Your task to perform on an android device: all mails in gmail Image 0: 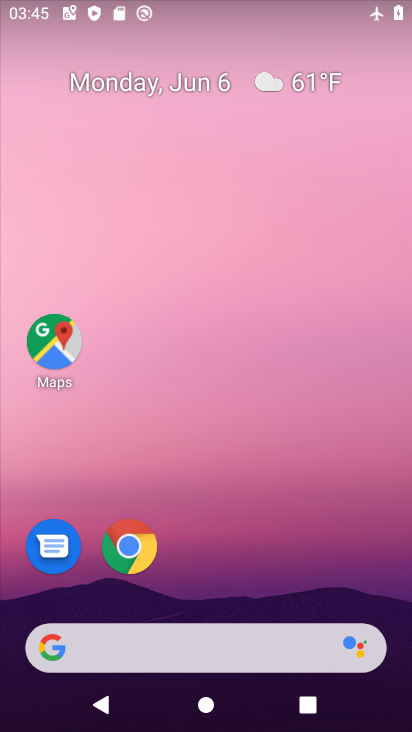
Step 0: drag from (191, 574) to (203, 84)
Your task to perform on an android device: all mails in gmail Image 1: 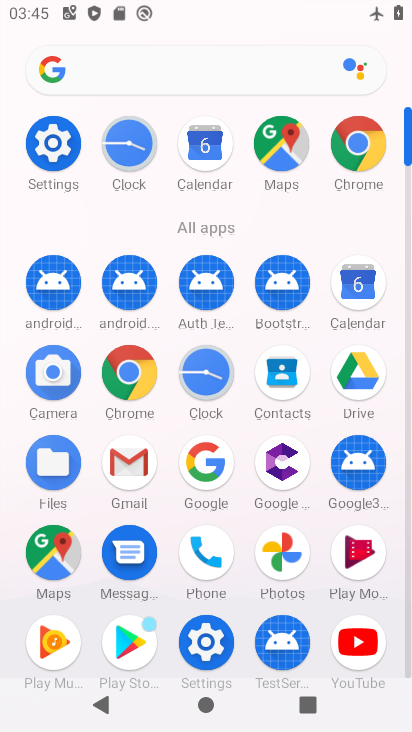
Step 1: click (130, 474)
Your task to perform on an android device: all mails in gmail Image 2: 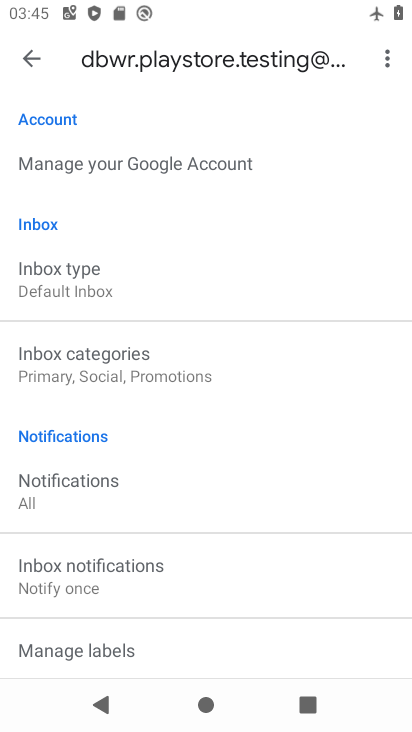
Step 2: click (25, 55)
Your task to perform on an android device: all mails in gmail Image 3: 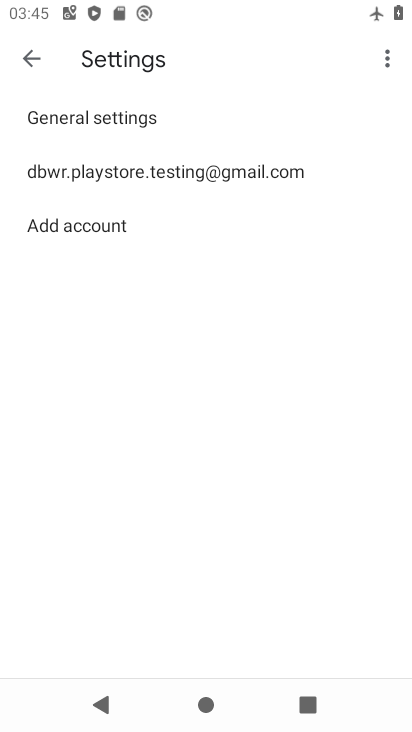
Step 3: click (35, 52)
Your task to perform on an android device: all mails in gmail Image 4: 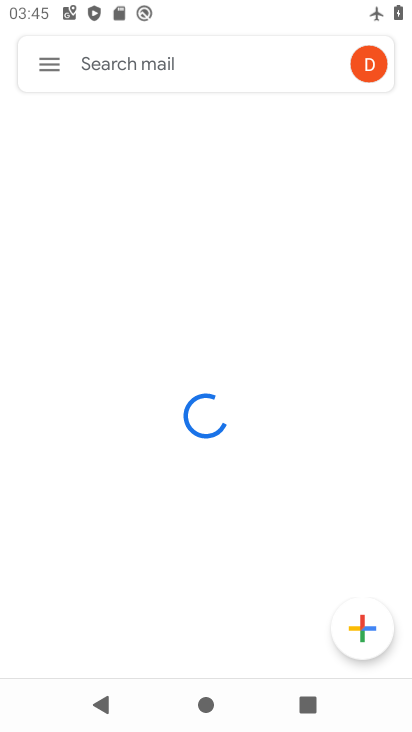
Step 4: click (50, 66)
Your task to perform on an android device: all mails in gmail Image 5: 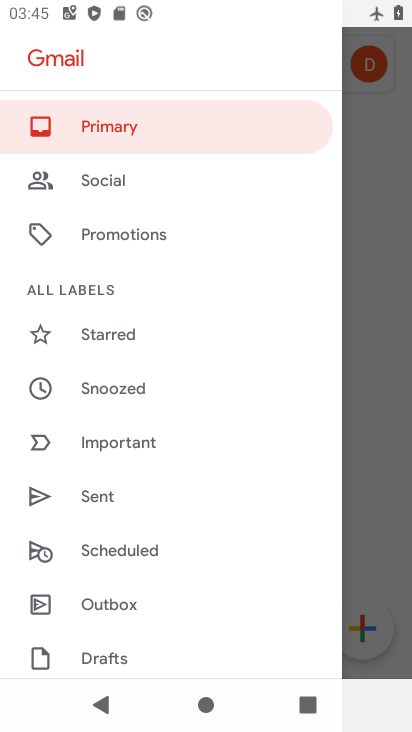
Step 5: drag from (170, 203) to (165, 20)
Your task to perform on an android device: all mails in gmail Image 6: 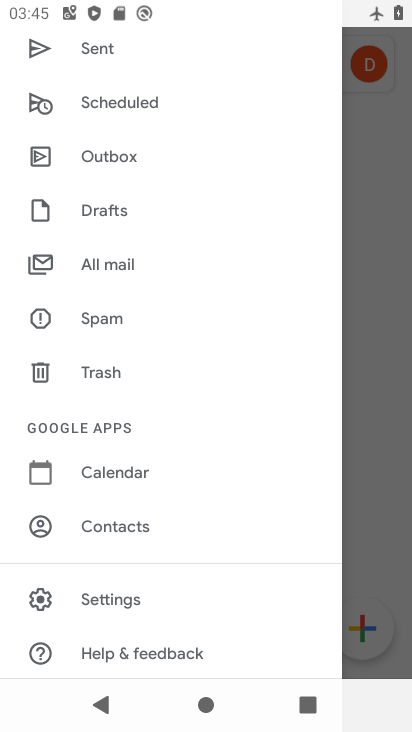
Step 6: click (99, 266)
Your task to perform on an android device: all mails in gmail Image 7: 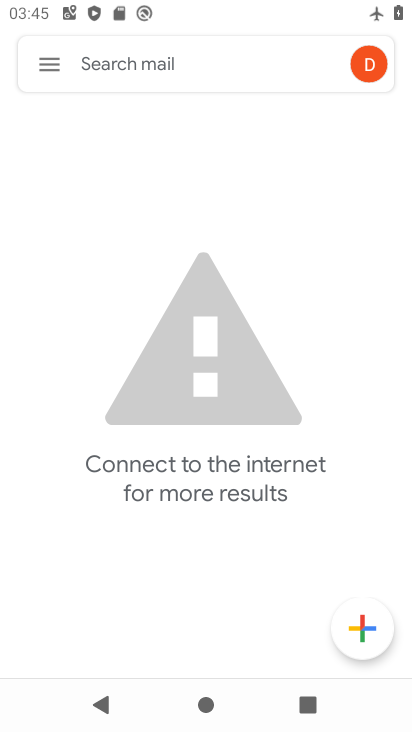
Step 7: task complete